Your task to perform on an android device: Open Chrome and go to settings Image 0: 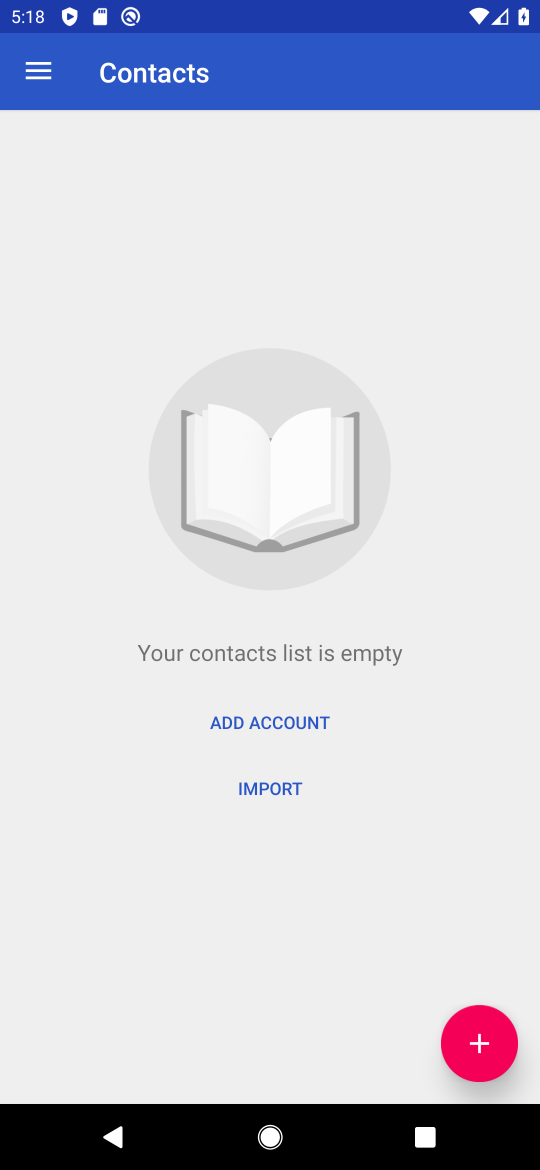
Step 0: press home button
Your task to perform on an android device: Open Chrome and go to settings Image 1: 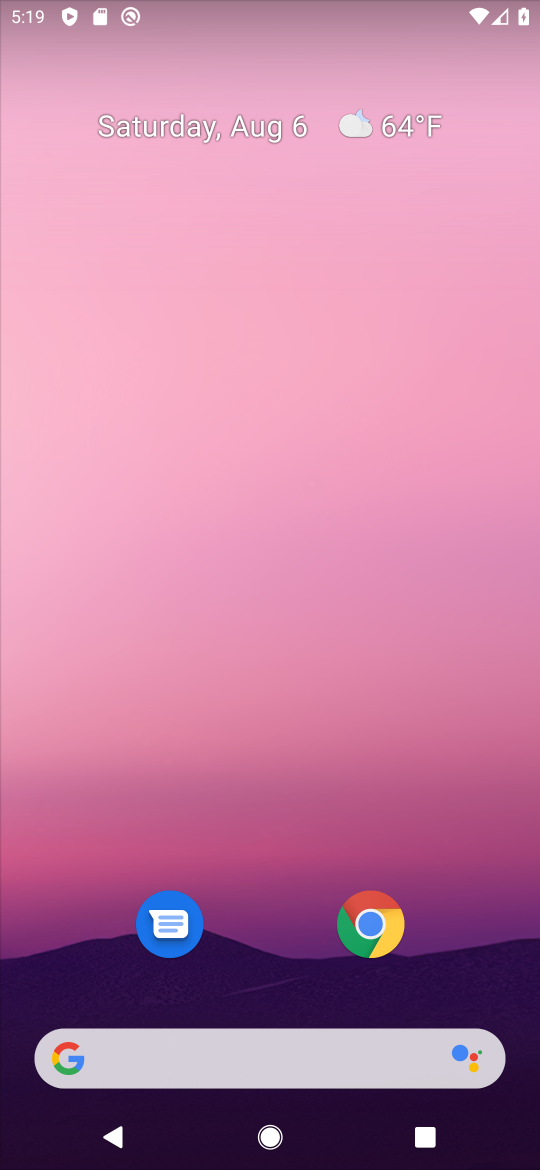
Step 1: click (370, 925)
Your task to perform on an android device: Open Chrome and go to settings Image 2: 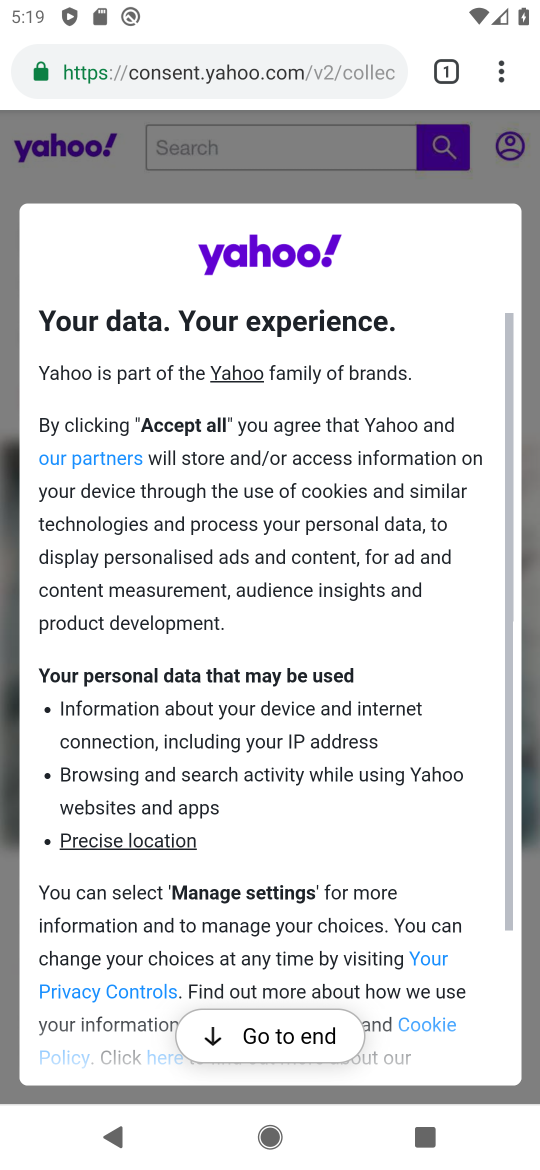
Step 2: click (501, 67)
Your task to perform on an android device: Open Chrome and go to settings Image 3: 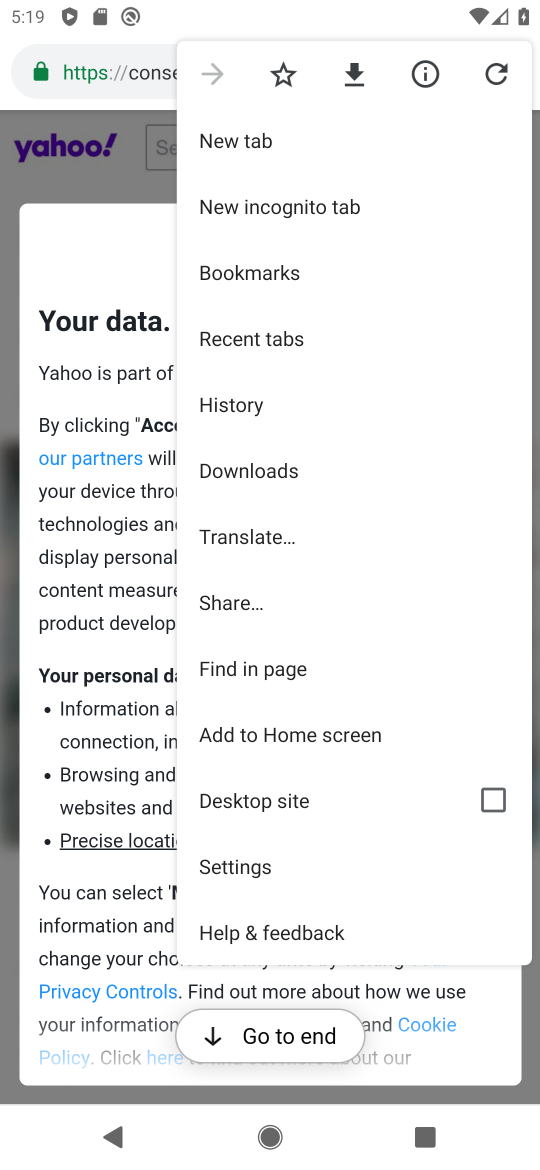
Step 3: click (247, 871)
Your task to perform on an android device: Open Chrome and go to settings Image 4: 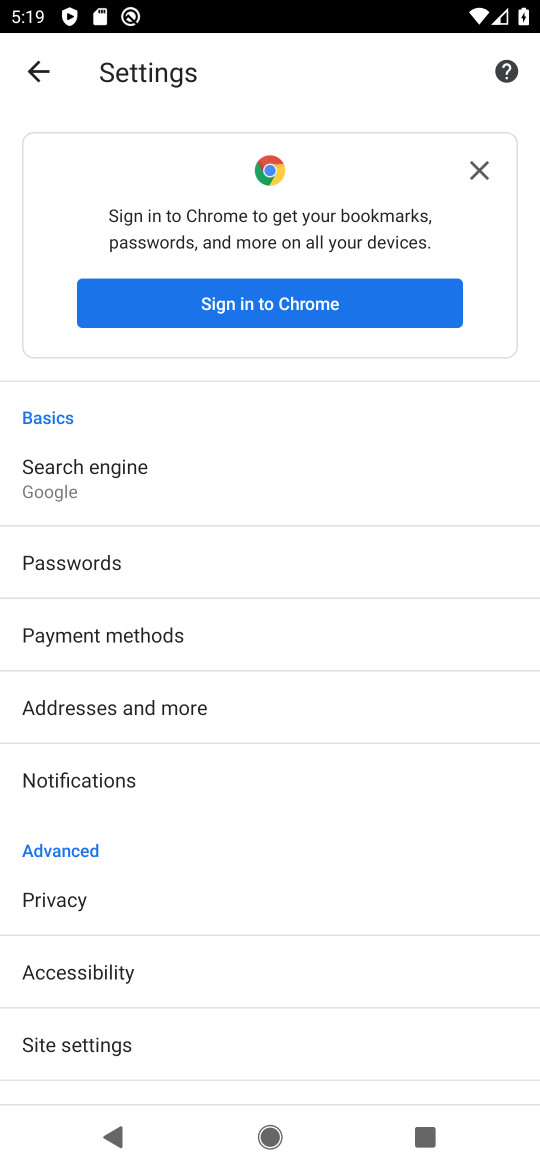
Step 4: task complete